Your task to perform on an android device: change notifications settings Image 0: 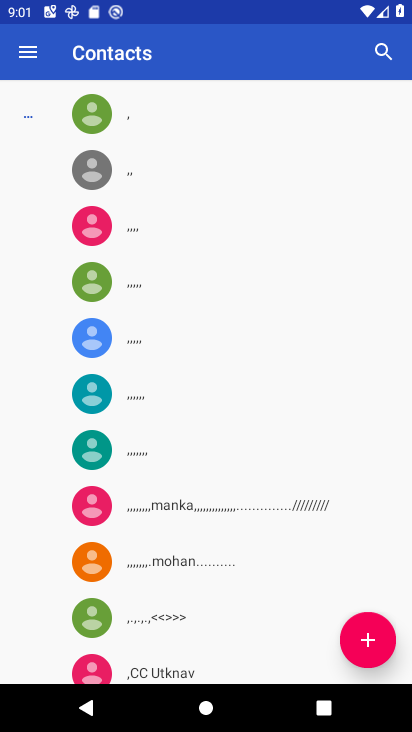
Step 0: press home button
Your task to perform on an android device: change notifications settings Image 1: 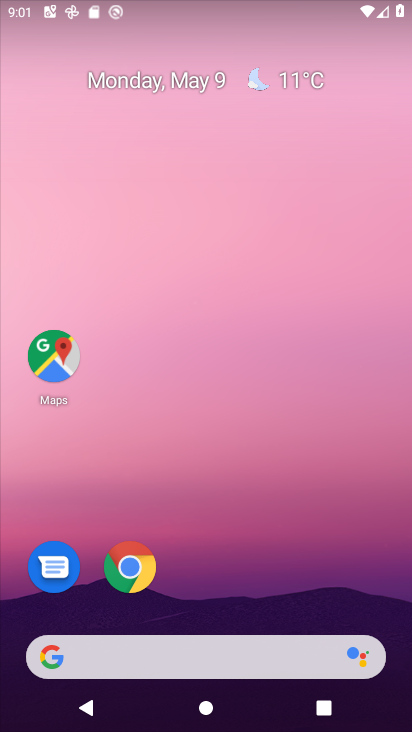
Step 1: drag from (224, 486) to (274, 18)
Your task to perform on an android device: change notifications settings Image 2: 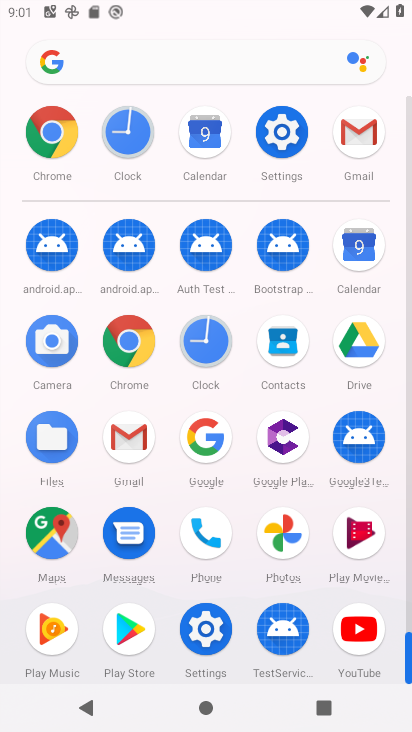
Step 2: click (279, 123)
Your task to perform on an android device: change notifications settings Image 3: 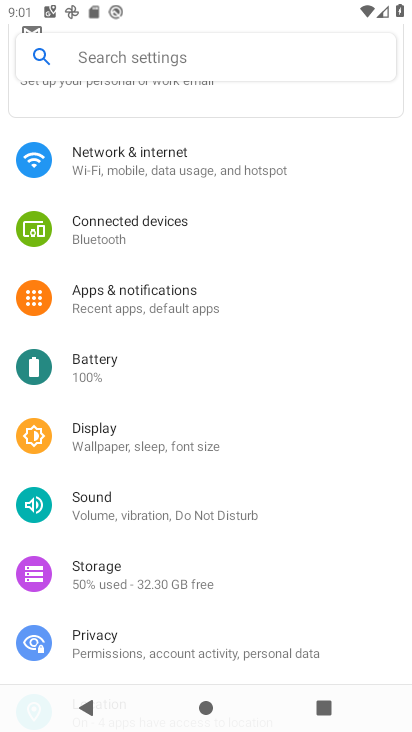
Step 3: click (173, 297)
Your task to perform on an android device: change notifications settings Image 4: 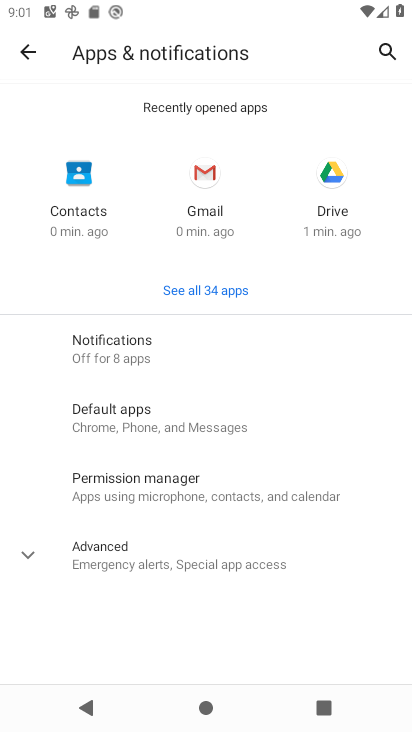
Step 4: click (150, 336)
Your task to perform on an android device: change notifications settings Image 5: 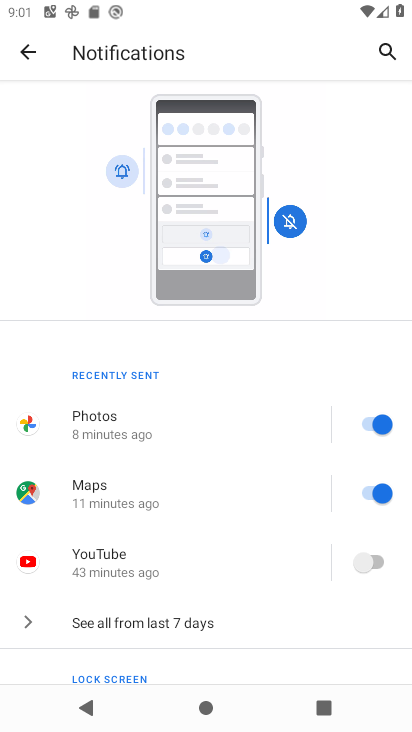
Step 5: click (242, 624)
Your task to perform on an android device: change notifications settings Image 6: 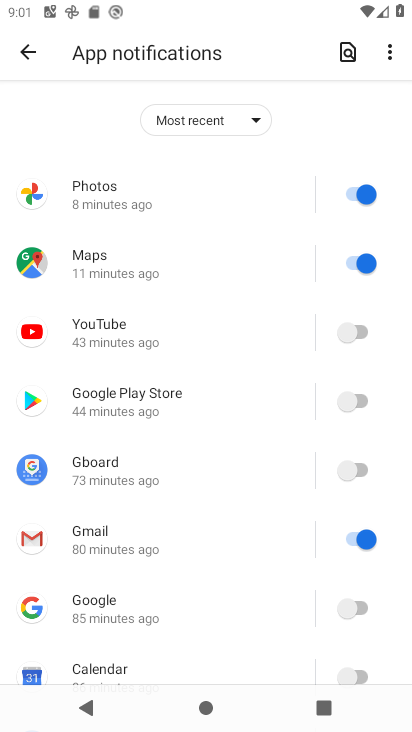
Step 6: click (357, 189)
Your task to perform on an android device: change notifications settings Image 7: 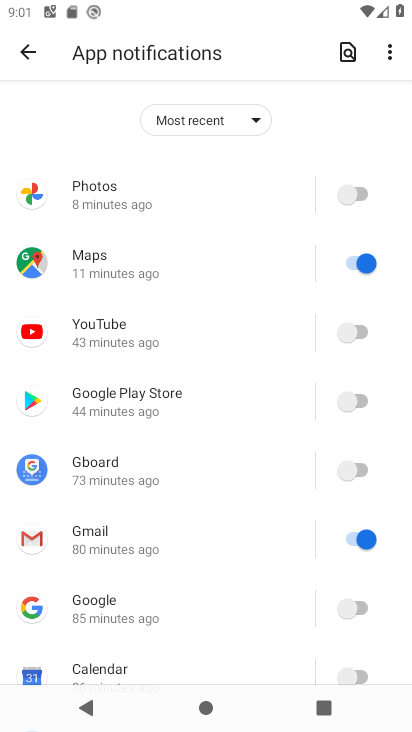
Step 7: click (362, 250)
Your task to perform on an android device: change notifications settings Image 8: 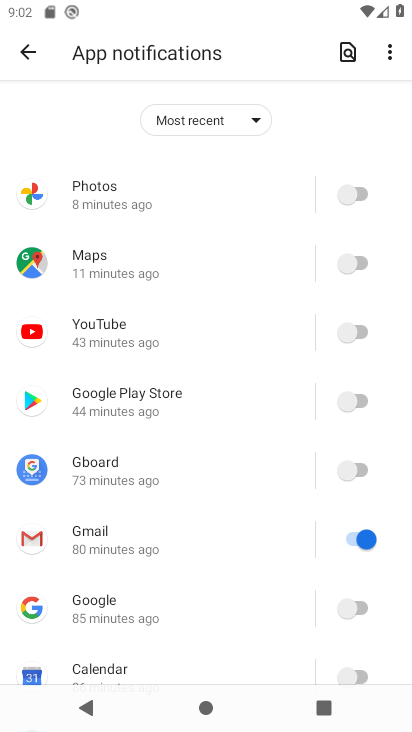
Step 8: click (364, 318)
Your task to perform on an android device: change notifications settings Image 9: 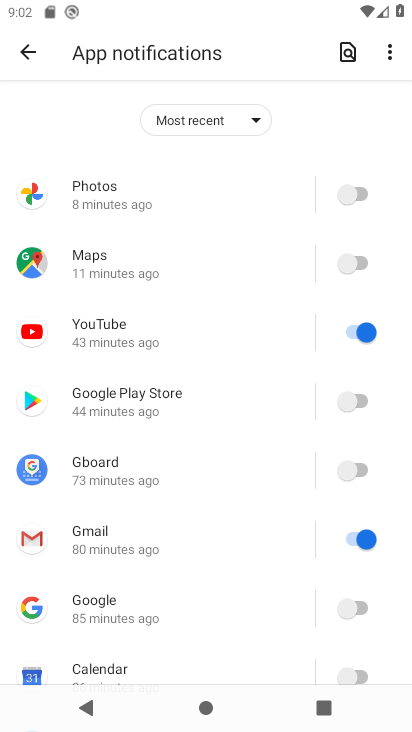
Step 9: click (357, 391)
Your task to perform on an android device: change notifications settings Image 10: 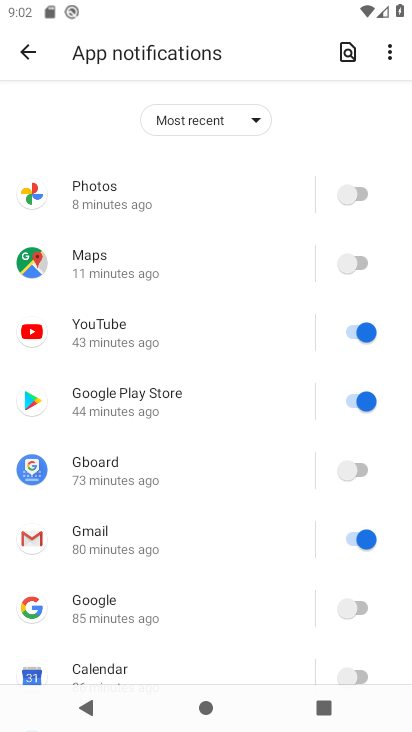
Step 10: click (356, 472)
Your task to perform on an android device: change notifications settings Image 11: 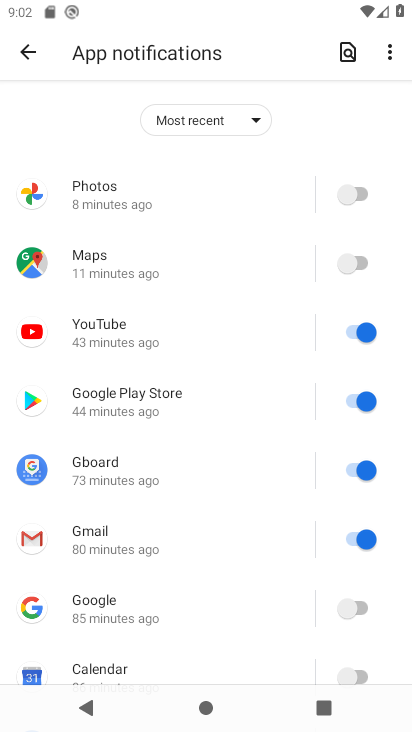
Step 11: click (362, 523)
Your task to perform on an android device: change notifications settings Image 12: 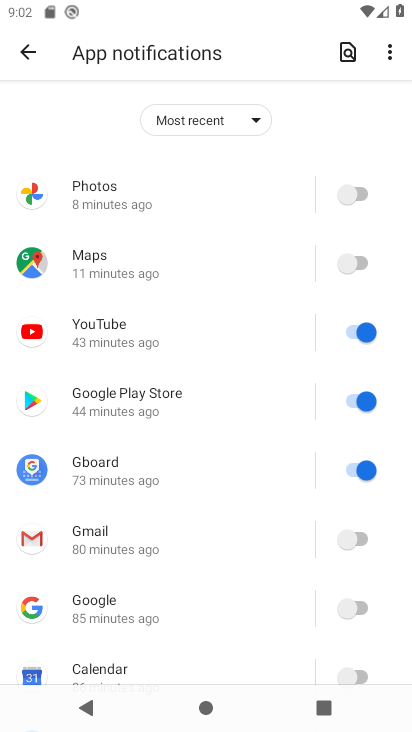
Step 12: click (355, 614)
Your task to perform on an android device: change notifications settings Image 13: 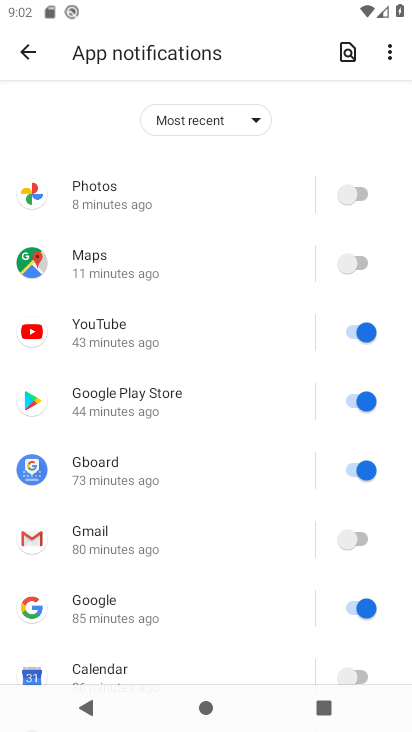
Step 13: click (355, 665)
Your task to perform on an android device: change notifications settings Image 14: 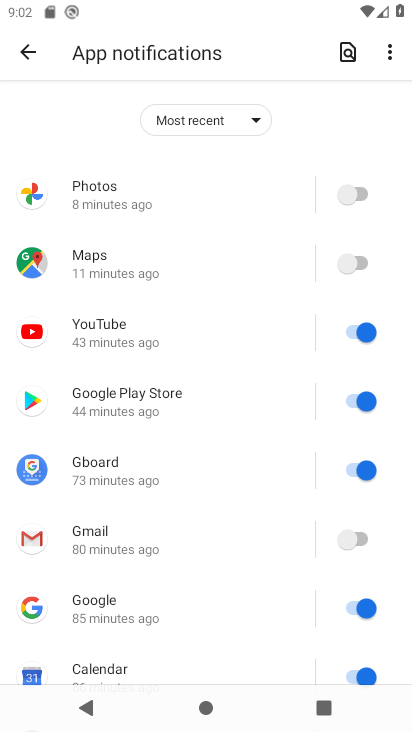
Step 14: drag from (249, 588) to (227, 168)
Your task to perform on an android device: change notifications settings Image 15: 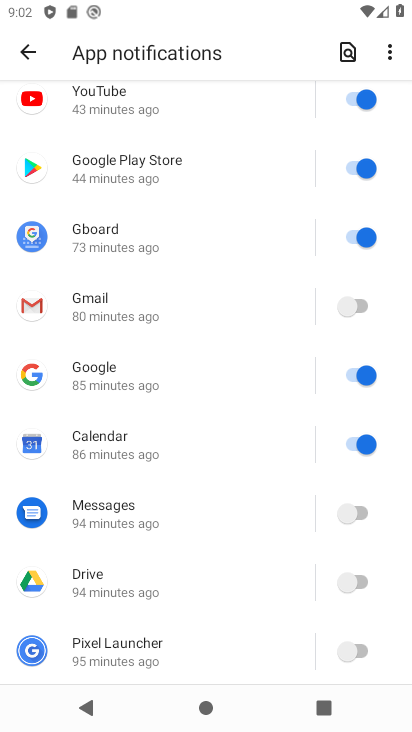
Step 15: click (347, 506)
Your task to perform on an android device: change notifications settings Image 16: 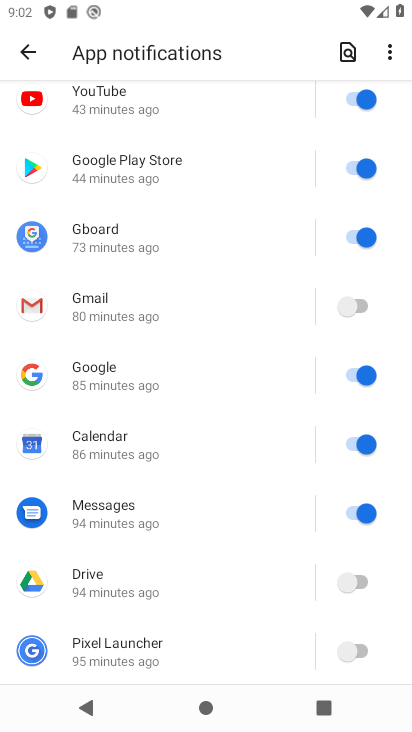
Step 16: click (349, 569)
Your task to perform on an android device: change notifications settings Image 17: 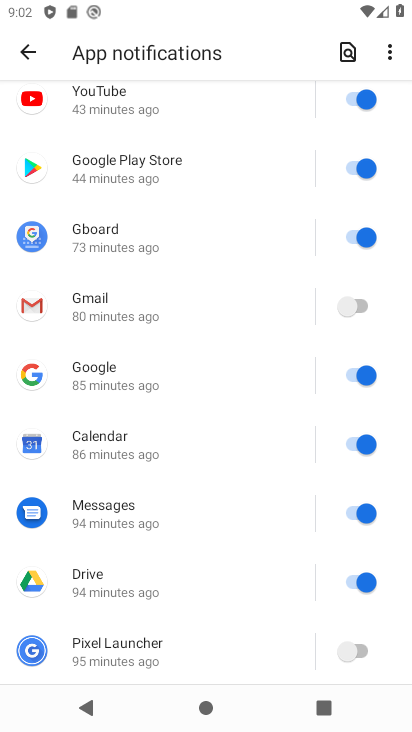
Step 17: click (357, 646)
Your task to perform on an android device: change notifications settings Image 18: 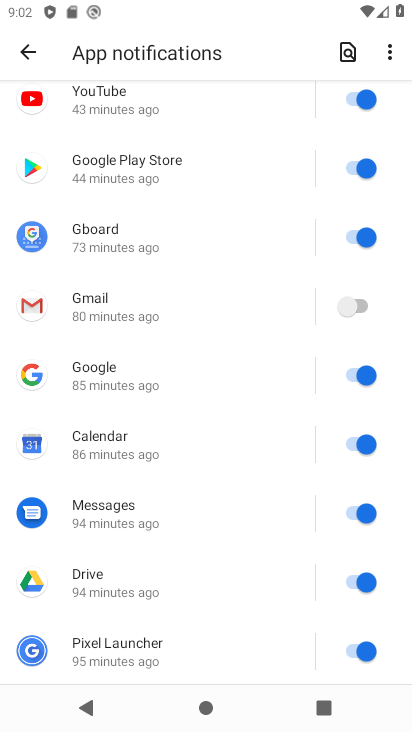
Step 18: task complete